Your task to perform on an android device: move a message to another label in the gmail app Image 0: 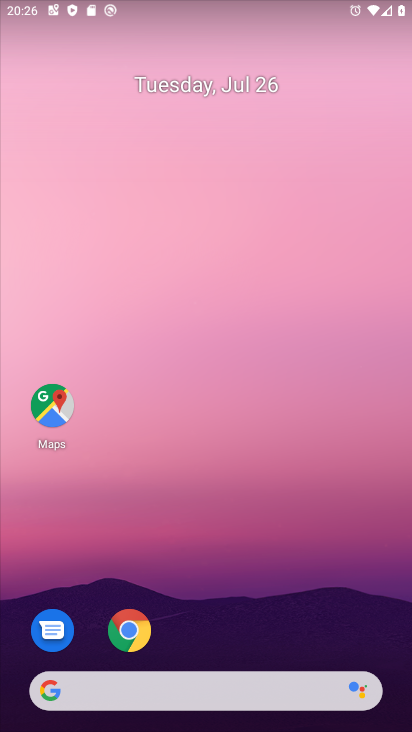
Step 0: press home button
Your task to perform on an android device: move a message to another label in the gmail app Image 1: 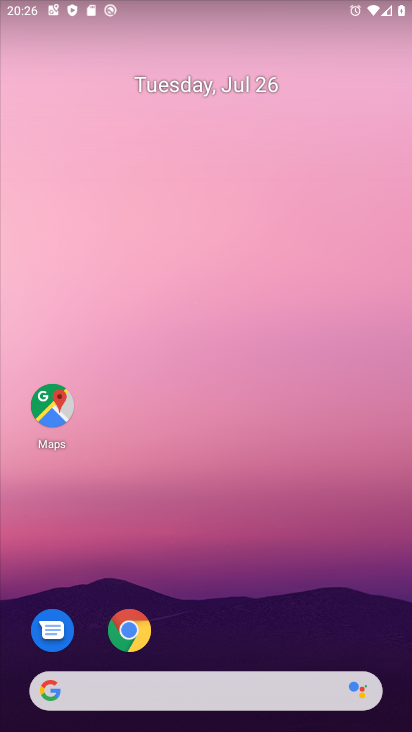
Step 1: click (336, 108)
Your task to perform on an android device: move a message to another label in the gmail app Image 2: 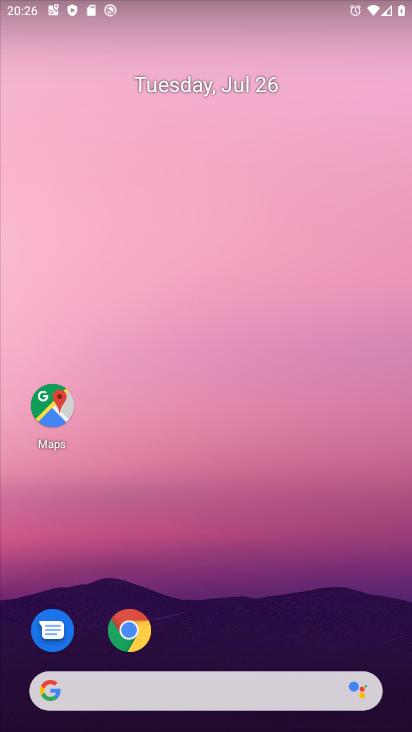
Step 2: drag from (333, 598) to (332, 67)
Your task to perform on an android device: move a message to another label in the gmail app Image 3: 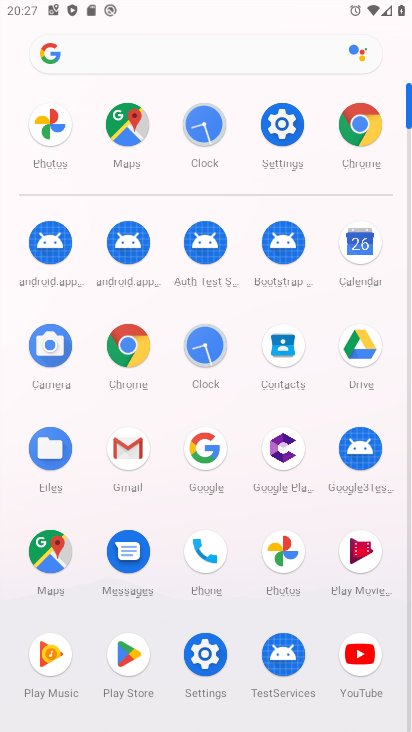
Step 3: click (128, 453)
Your task to perform on an android device: move a message to another label in the gmail app Image 4: 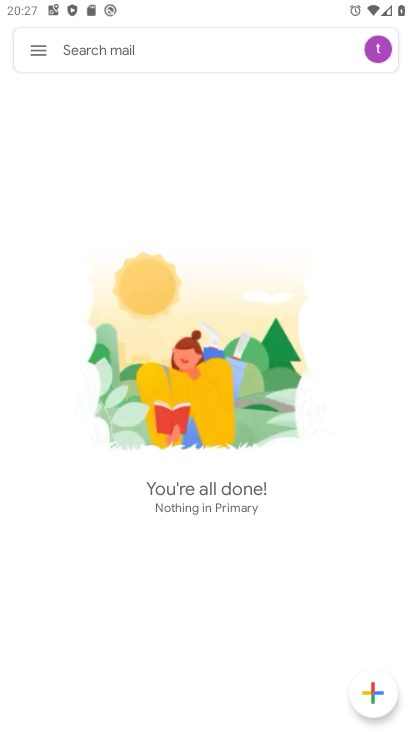
Step 4: task complete